Your task to perform on an android device: toggle notification dots Image 0: 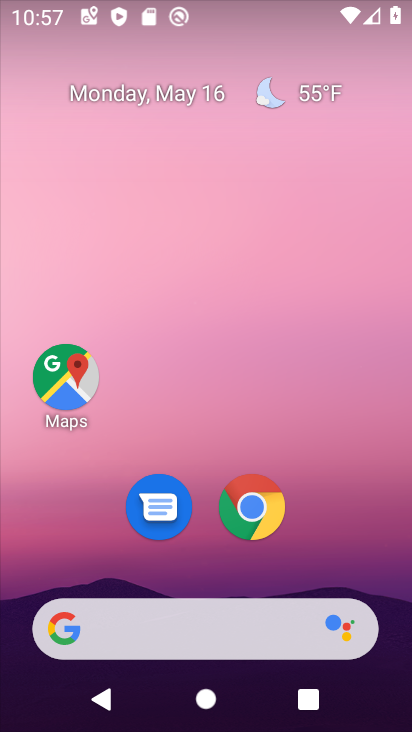
Step 0: drag from (315, 543) to (300, 145)
Your task to perform on an android device: toggle notification dots Image 1: 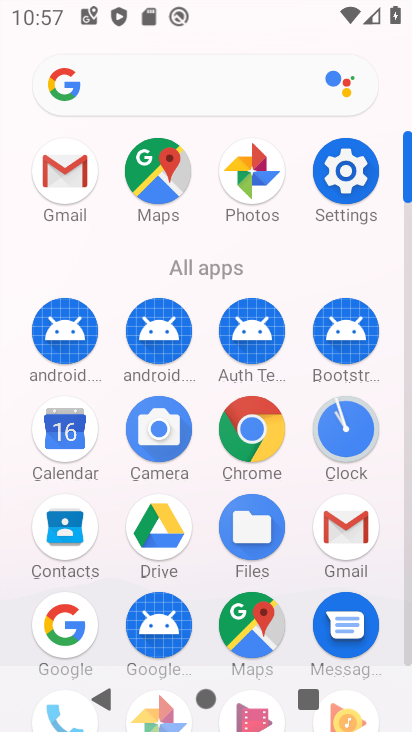
Step 1: click (340, 193)
Your task to perform on an android device: toggle notification dots Image 2: 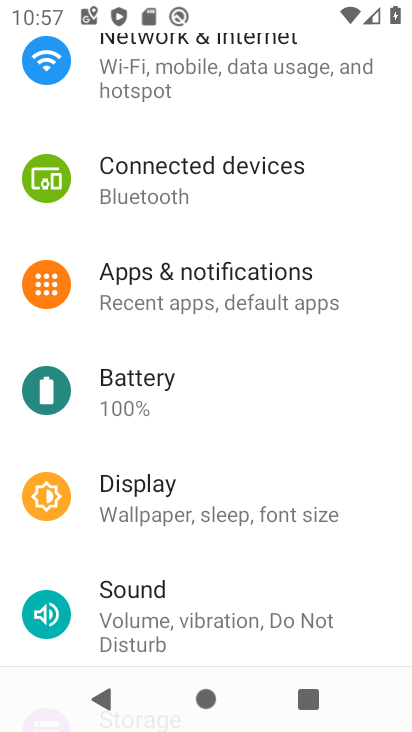
Step 2: click (260, 281)
Your task to perform on an android device: toggle notification dots Image 3: 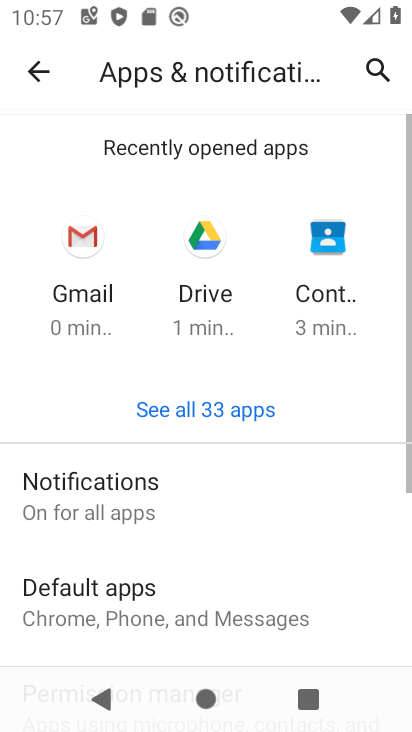
Step 3: click (179, 493)
Your task to perform on an android device: toggle notification dots Image 4: 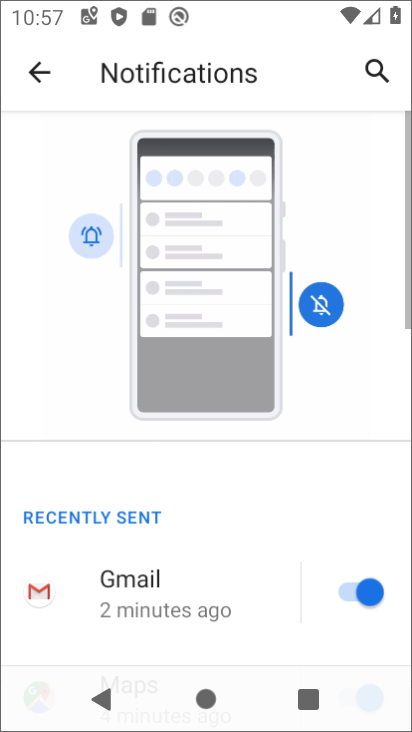
Step 4: drag from (269, 599) to (277, 164)
Your task to perform on an android device: toggle notification dots Image 5: 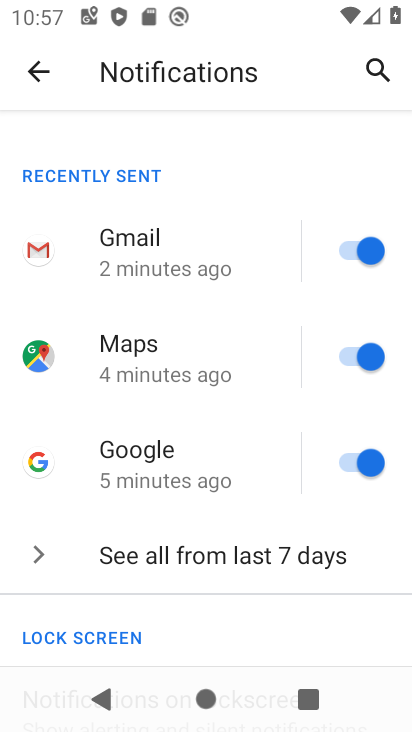
Step 5: drag from (219, 477) to (215, 204)
Your task to perform on an android device: toggle notification dots Image 6: 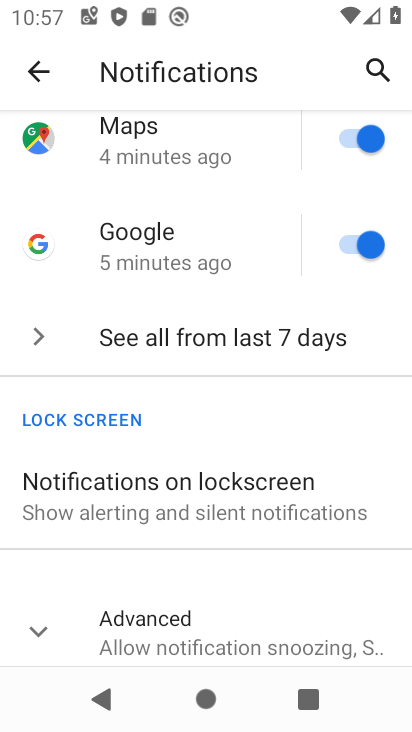
Step 6: click (35, 629)
Your task to perform on an android device: toggle notification dots Image 7: 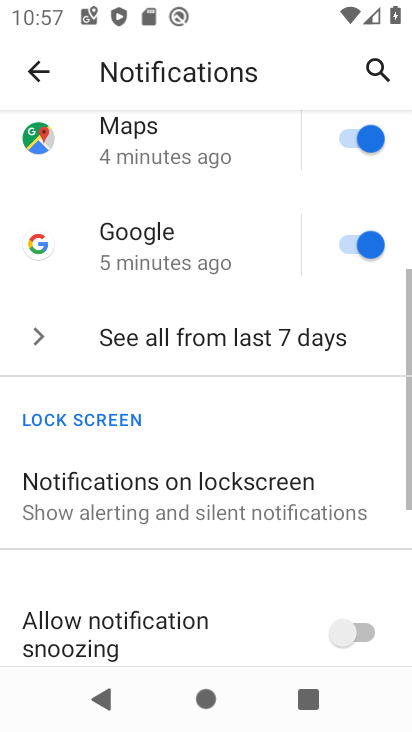
Step 7: drag from (243, 583) to (237, 208)
Your task to perform on an android device: toggle notification dots Image 8: 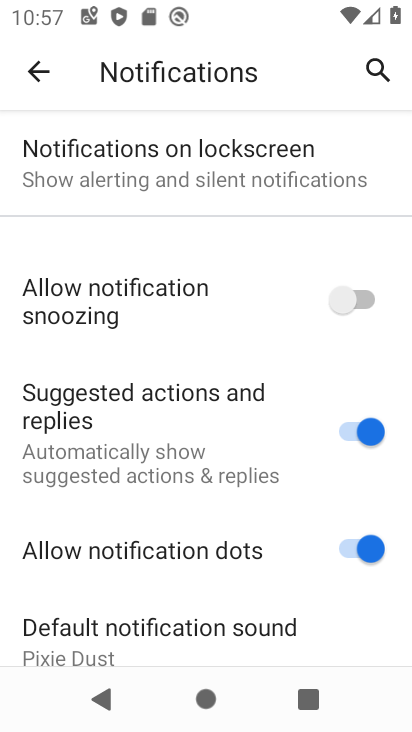
Step 8: click (364, 556)
Your task to perform on an android device: toggle notification dots Image 9: 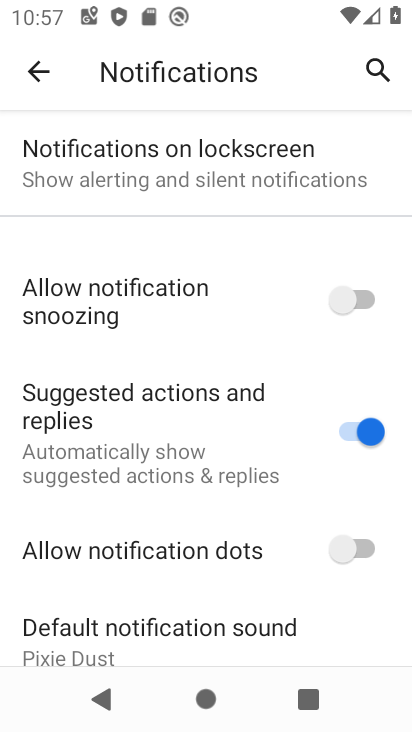
Step 9: task complete